Your task to perform on an android device: Go to display settings Image 0: 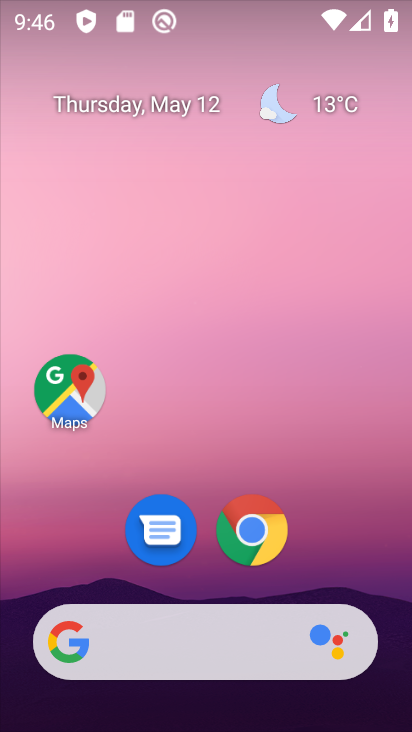
Step 0: drag from (345, 544) to (334, 87)
Your task to perform on an android device: Go to display settings Image 1: 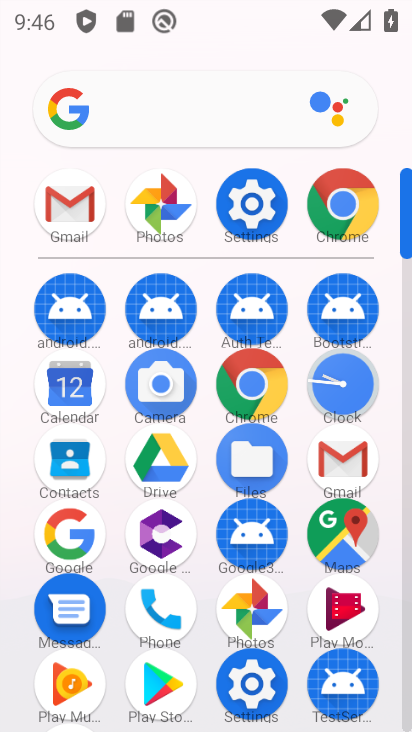
Step 1: click (266, 224)
Your task to perform on an android device: Go to display settings Image 2: 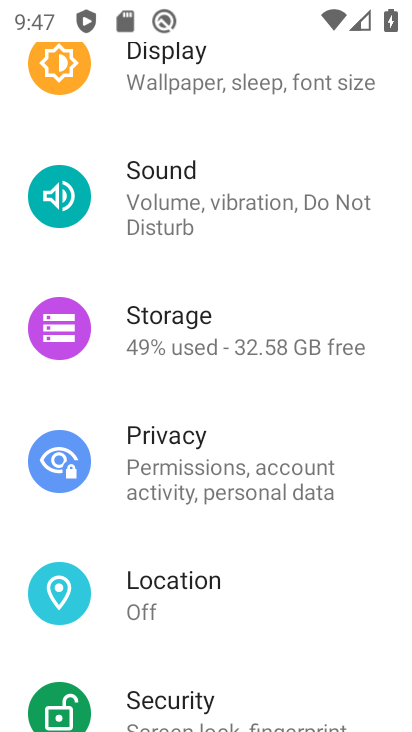
Step 2: click (237, 83)
Your task to perform on an android device: Go to display settings Image 3: 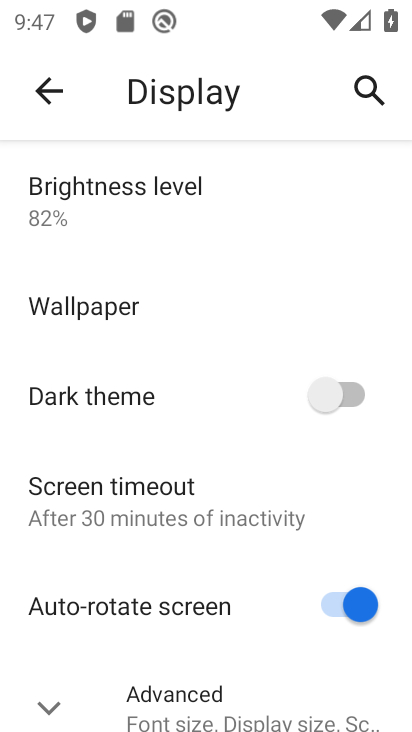
Step 3: task complete